Your task to perform on an android device: toggle javascript in the chrome app Image 0: 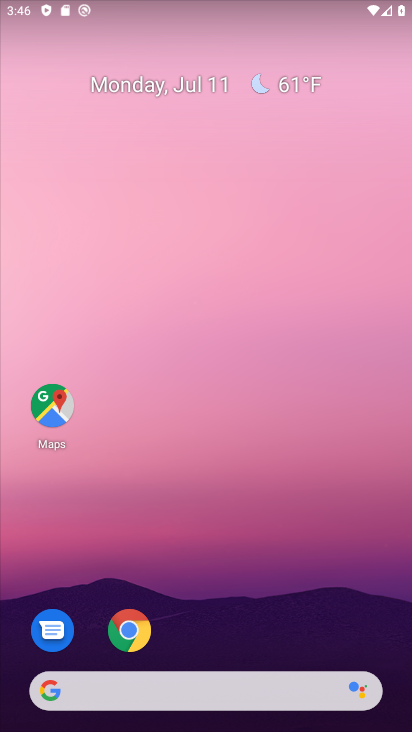
Step 0: drag from (219, 502) to (279, 196)
Your task to perform on an android device: toggle javascript in the chrome app Image 1: 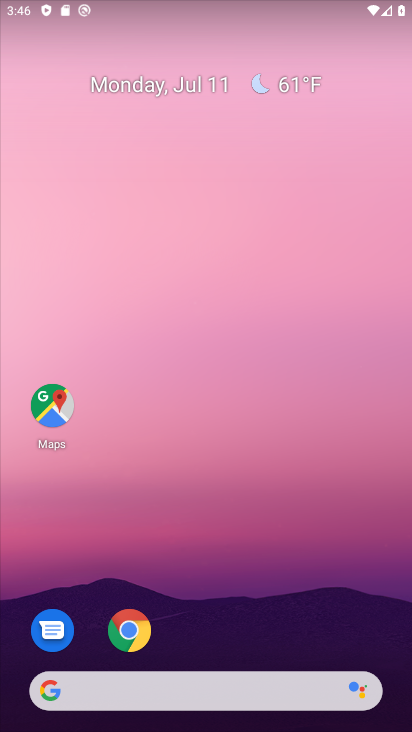
Step 1: drag from (234, 650) to (299, 335)
Your task to perform on an android device: toggle javascript in the chrome app Image 2: 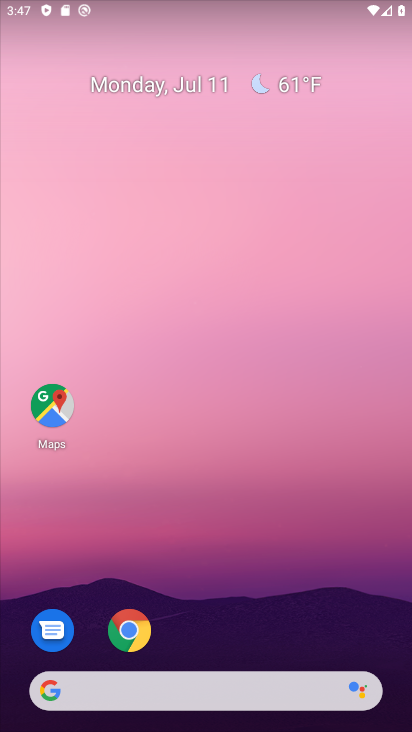
Step 2: click (129, 639)
Your task to perform on an android device: toggle javascript in the chrome app Image 3: 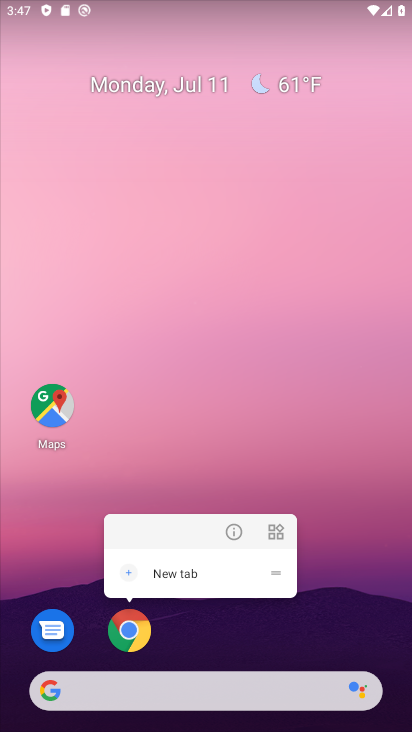
Step 3: click (130, 623)
Your task to perform on an android device: toggle javascript in the chrome app Image 4: 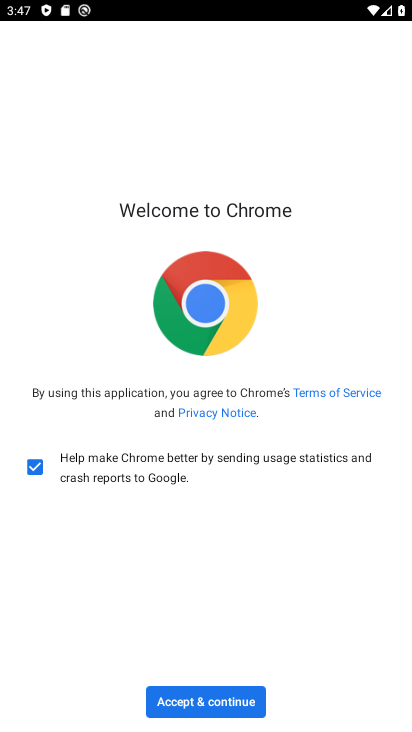
Step 4: click (197, 696)
Your task to perform on an android device: toggle javascript in the chrome app Image 5: 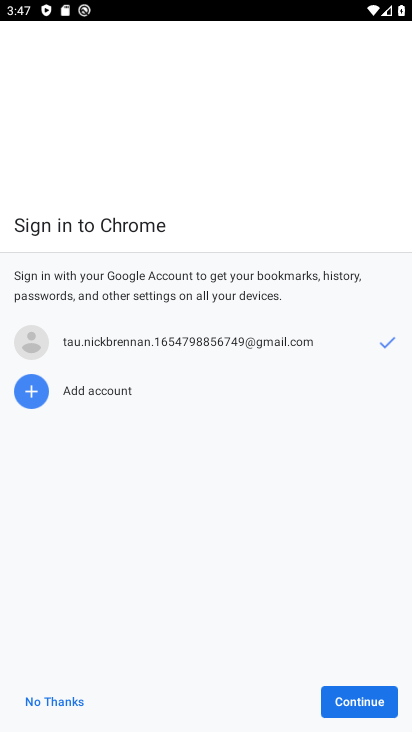
Step 5: click (346, 701)
Your task to perform on an android device: toggle javascript in the chrome app Image 6: 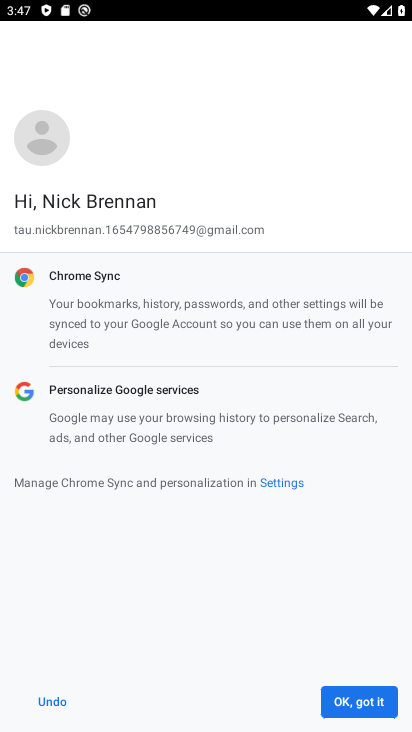
Step 6: click (346, 701)
Your task to perform on an android device: toggle javascript in the chrome app Image 7: 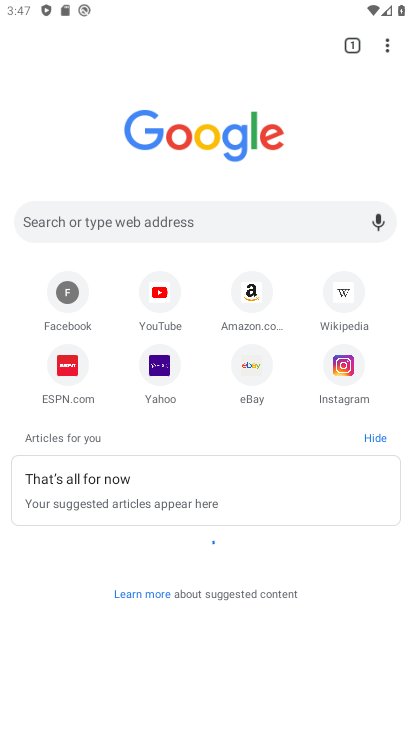
Step 7: drag from (388, 43) to (296, 385)
Your task to perform on an android device: toggle javascript in the chrome app Image 8: 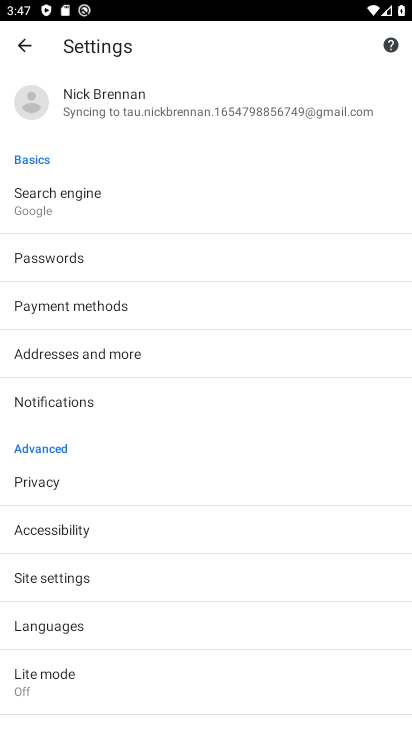
Step 8: click (106, 585)
Your task to perform on an android device: toggle javascript in the chrome app Image 9: 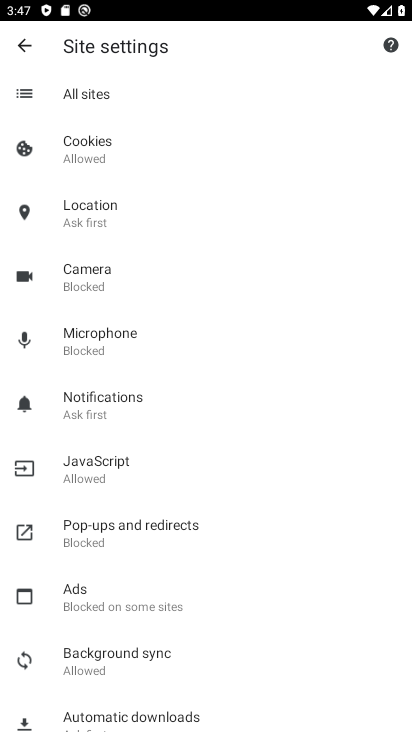
Step 9: click (167, 465)
Your task to perform on an android device: toggle javascript in the chrome app Image 10: 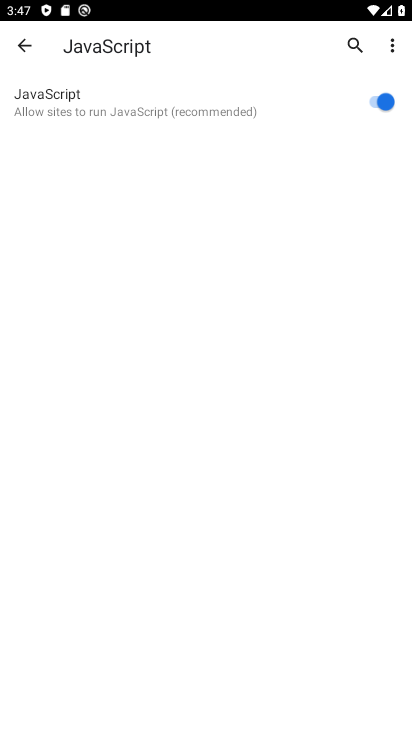
Step 10: click (369, 91)
Your task to perform on an android device: toggle javascript in the chrome app Image 11: 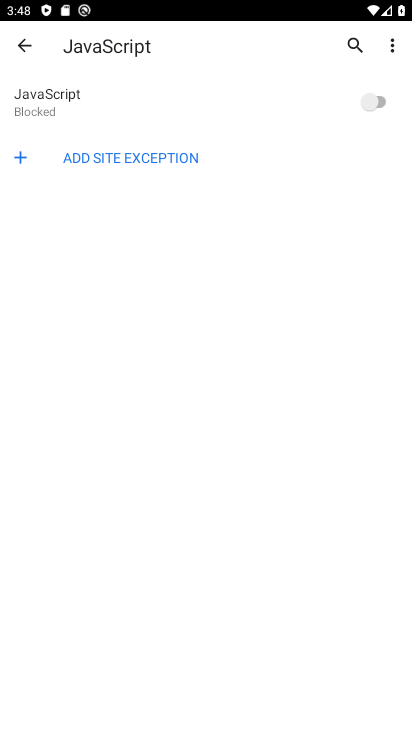
Step 11: task complete